Your task to perform on an android device: toggle wifi Image 0: 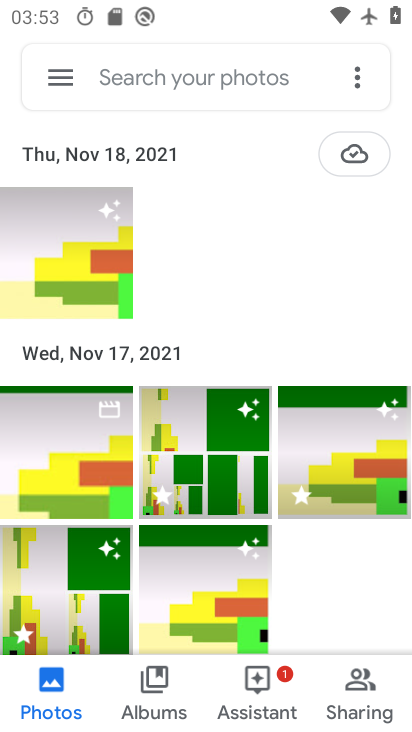
Step 0: press home button
Your task to perform on an android device: toggle wifi Image 1: 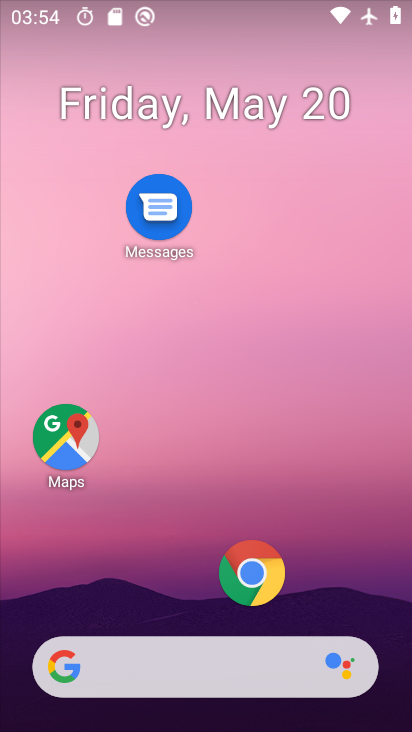
Step 1: drag from (204, 617) to (239, 176)
Your task to perform on an android device: toggle wifi Image 2: 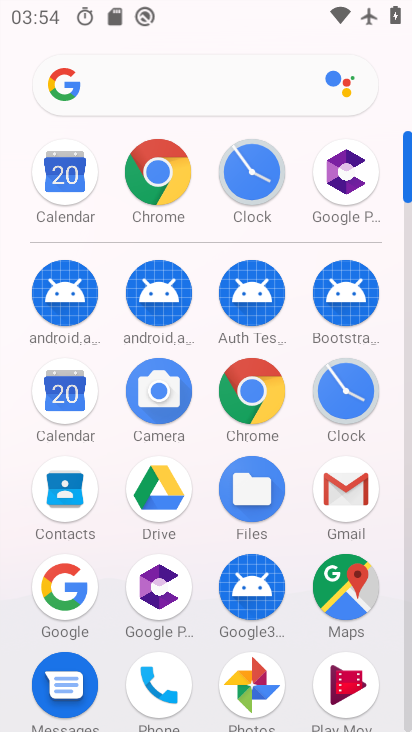
Step 2: drag from (202, 567) to (260, 265)
Your task to perform on an android device: toggle wifi Image 3: 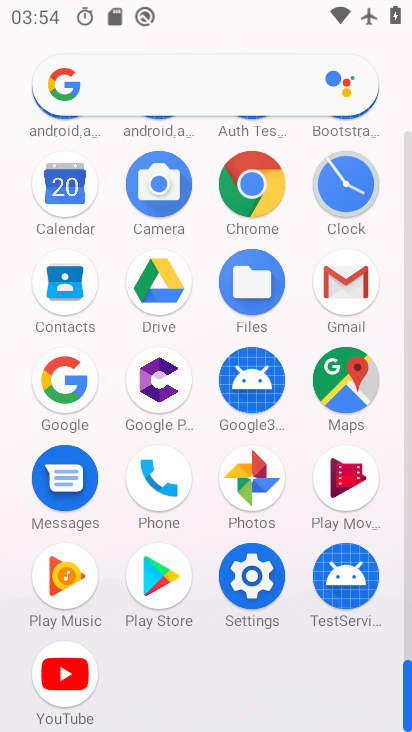
Step 3: click (252, 591)
Your task to perform on an android device: toggle wifi Image 4: 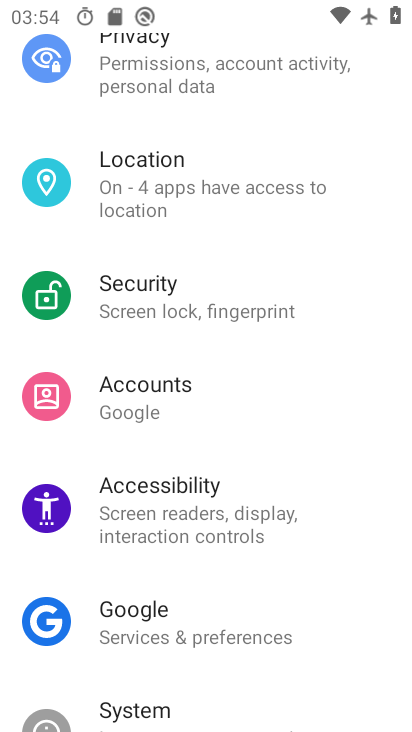
Step 4: drag from (232, 138) to (234, 335)
Your task to perform on an android device: toggle wifi Image 5: 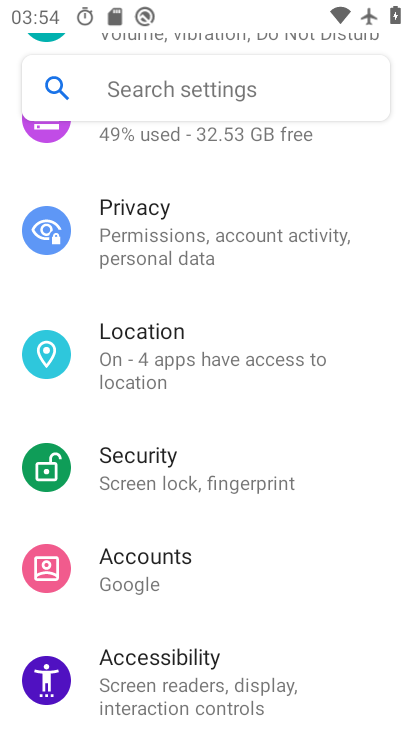
Step 5: drag from (188, 232) to (188, 483)
Your task to perform on an android device: toggle wifi Image 6: 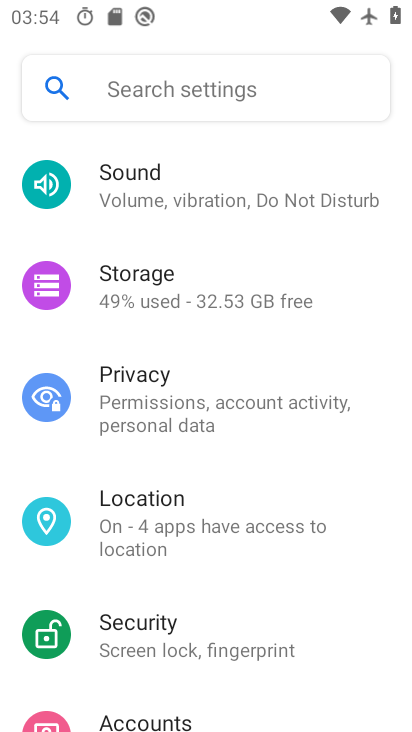
Step 6: drag from (189, 206) to (192, 454)
Your task to perform on an android device: toggle wifi Image 7: 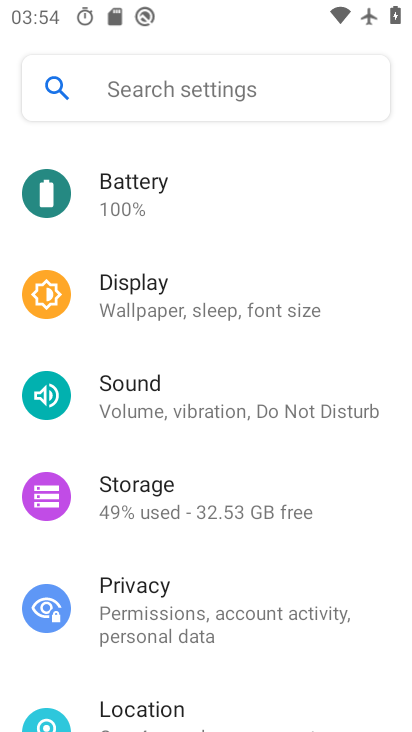
Step 7: drag from (170, 195) to (181, 546)
Your task to perform on an android device: toggle wifi Image 8: 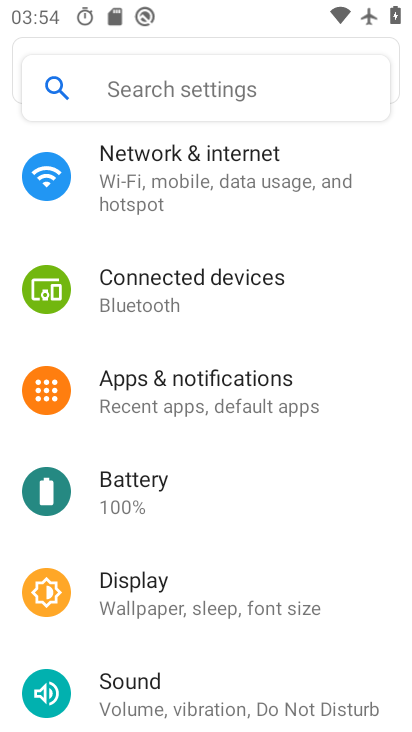
Step 8: click (188, 196)
Your task to perform on an android device: toggle wifi Image 9: 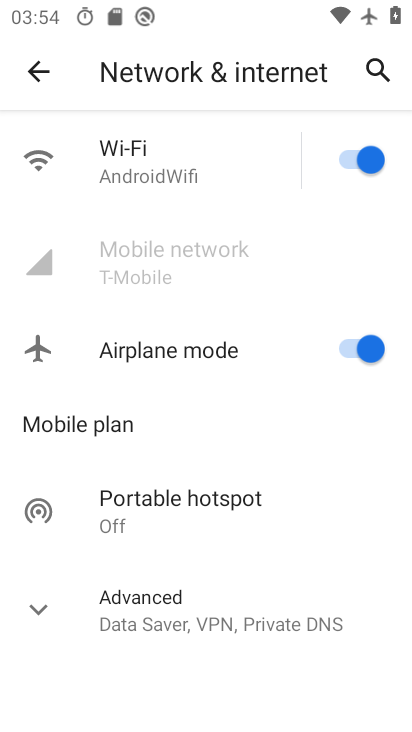
Step 9: click (349, 159)
Your task to perform on an android device: toggle wifi Image 10: 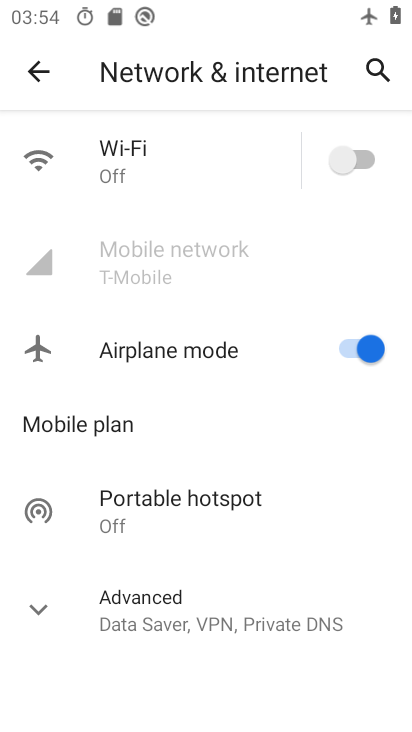
Step 10: task complete